Your task to perform on an android device: Open the Play Movies app and select the watchlist tab. Image 0: 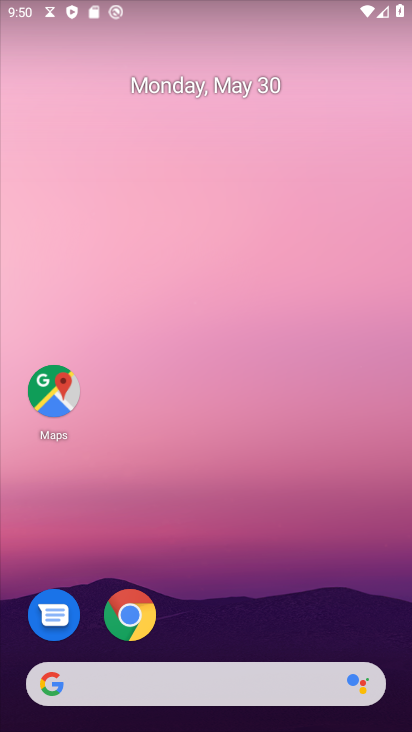
Step 0: drag from (211, 730) to (196, 16)
Your task to perform on an android device: Open the Play Movies app and select the watchlist tab. Image 1: 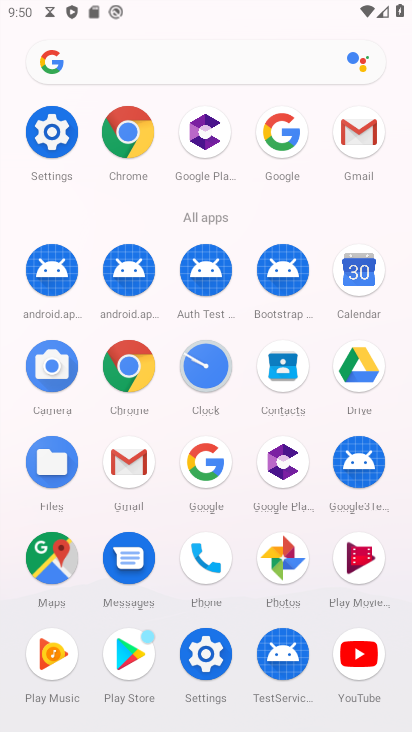
Step 1: click (359, 559)
Your task to perform on an android device: Open the Play Movies app and select the watchlist tab. Image 2: 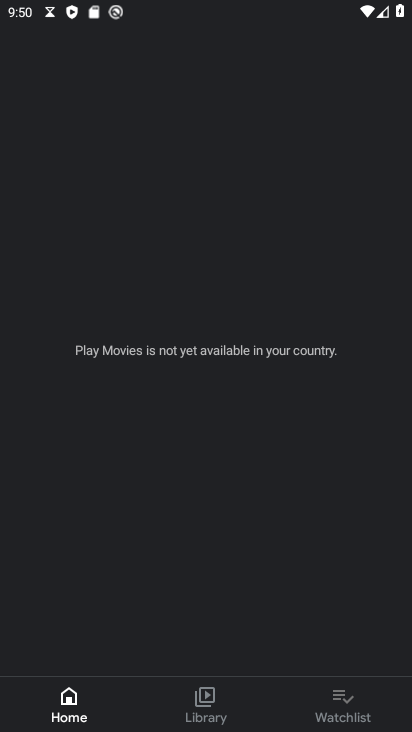
Step 2: click (336, 702)
Your task to perform on an android device: Open the Play Movies app and select the watchlist tab. Image 3: 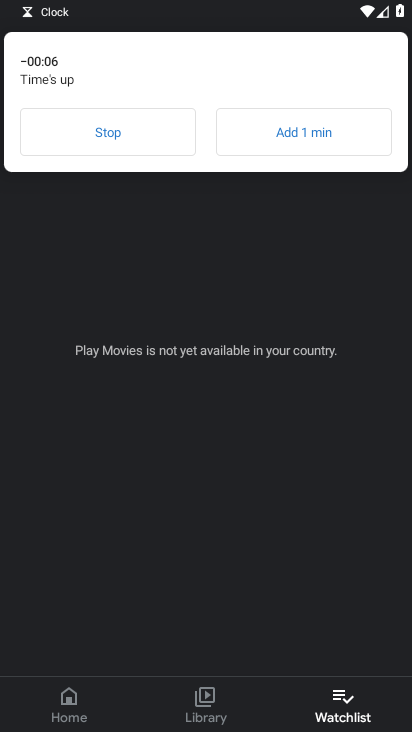
Step 3: task complete